Your task to perform on an android device: Open the map Image 0: 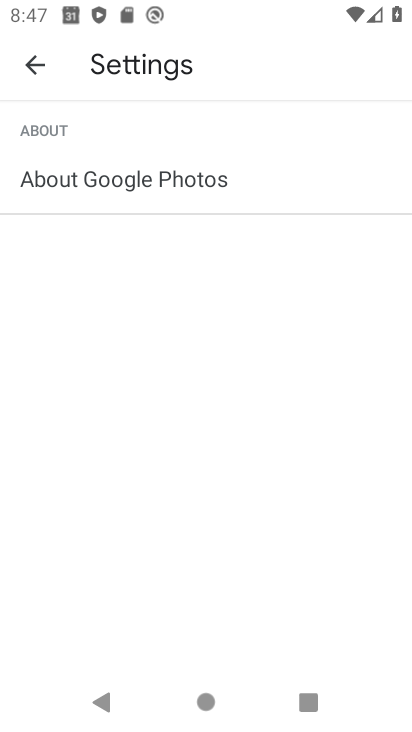
Step 0: press home button
Your task to perform on an android device: Open the map Image 1: 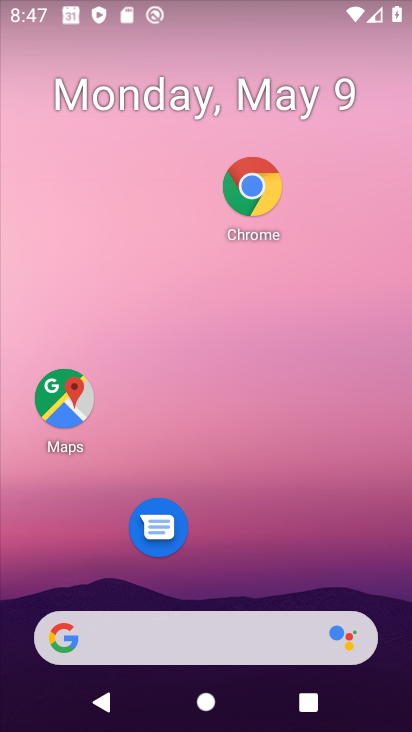
Step 1: click (65, 390)
Your task to perform on an android device: Open the map Image 2: 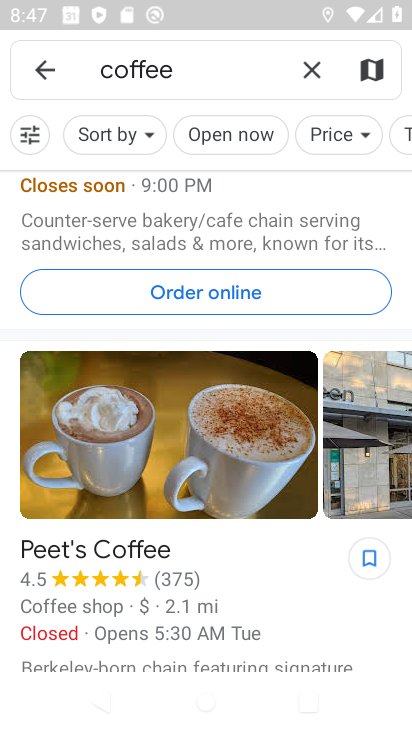
Step 2: click (311, 73)
Your task to perform on an android device: Open the map Image 3: 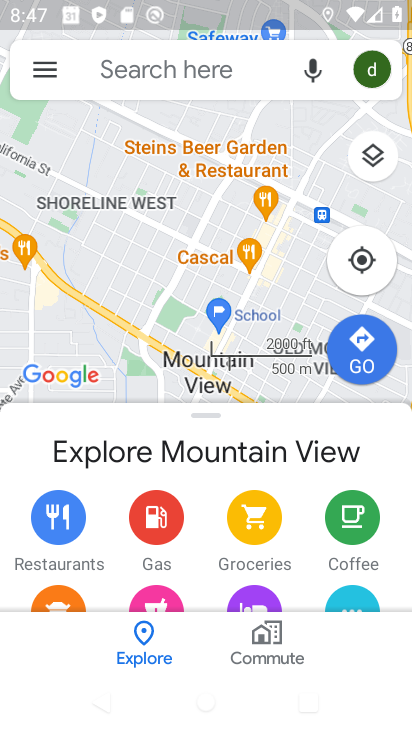
Step 3: task complete